Your task to perform on an android device: open chrome and create a bookmark for the current page Image 0: 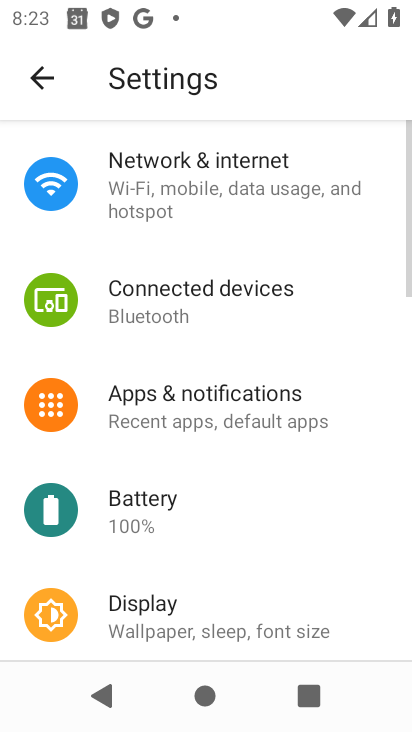
Step 0: press home button
Your task to perform on an android device: open chrome and create a bookmark for the current page Image 1: 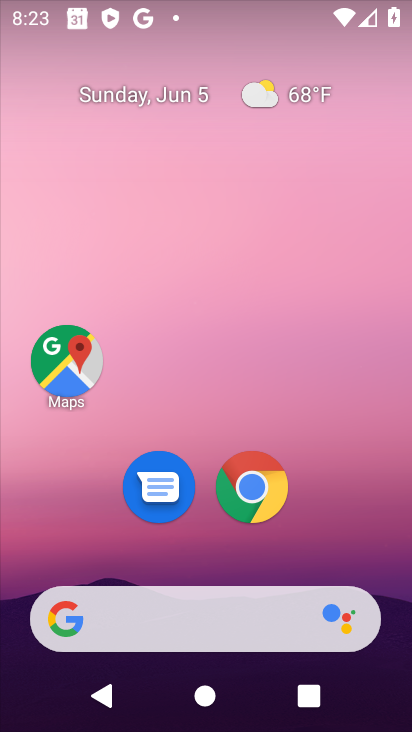
Step 1: click (233, 472)
Your task to perform on an android device: open chrome and create a bookmark for the current page Image 2: 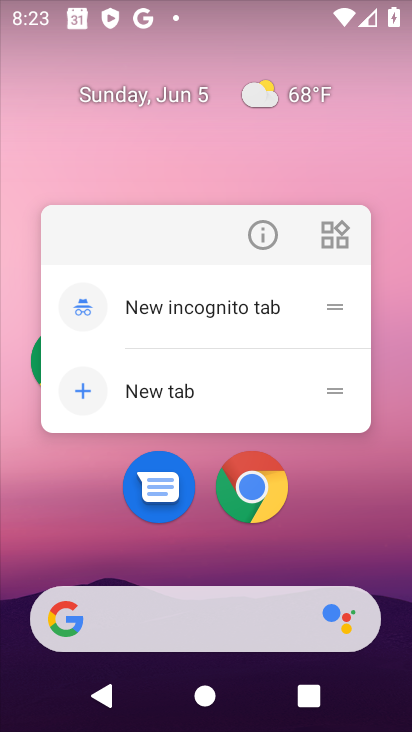
Step 2: click (244, 475)
Your task to perform on an android device: open chrome and create a bookmark for the current page Image 3: 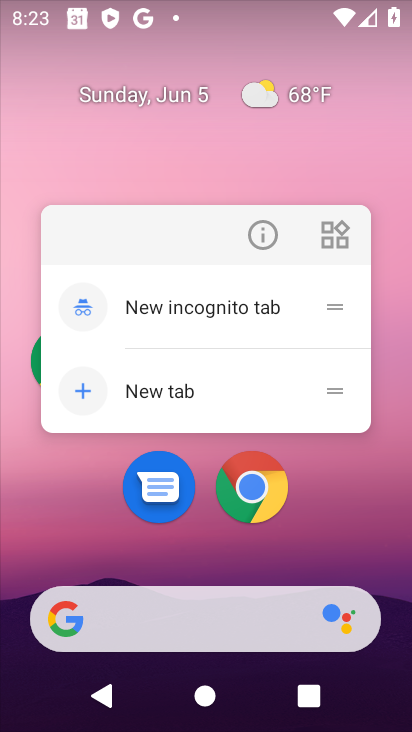
Step 3: click (246, 479)
Your task to perform on an android device: open chrome and create a bookmark for the current page Image 4: 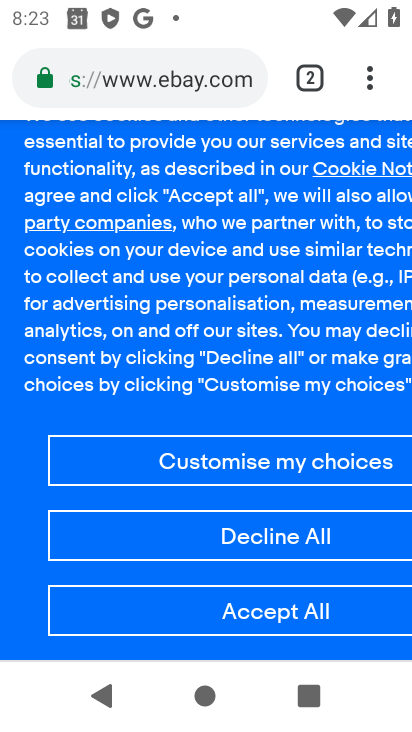
Step 4: task complete